Your task to perform on an android device: turn on the 24-hour format for clock Image 0: 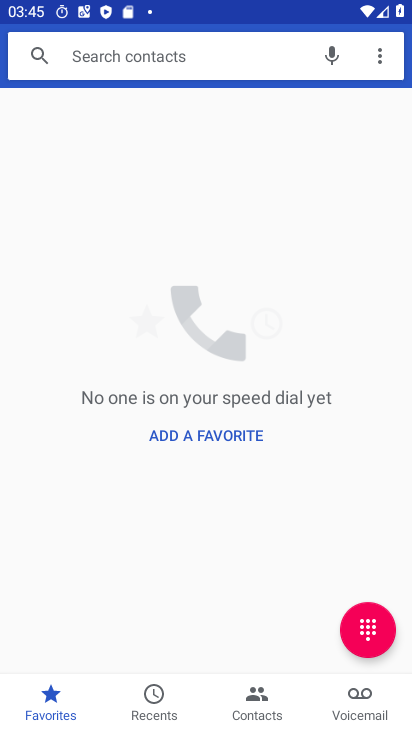
Step 0: press home button
Your task to perform on an android device: turn on the 24-hour format for clock Image 1: 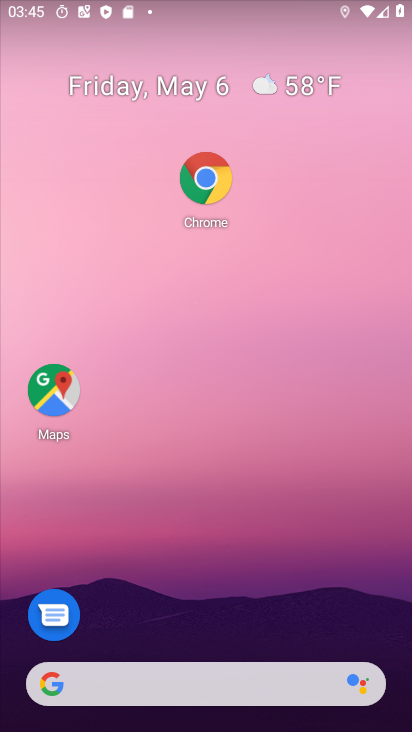
Step 1: drag from (268, 549) to (187, 120)
Your task to perform on an android device: turn on the 24-hour format for clock Image 2: 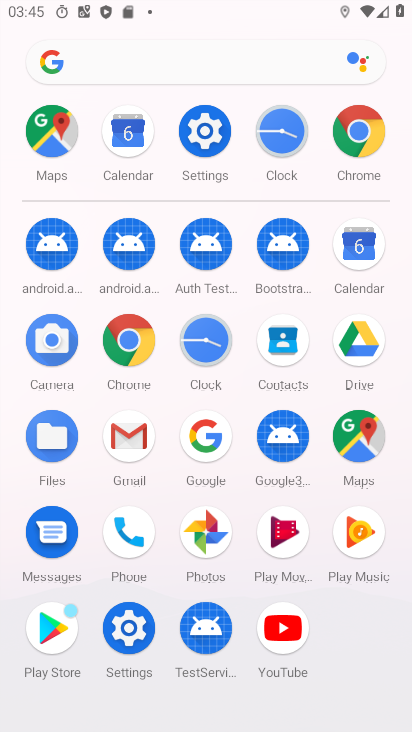
Step 2: click (270, 126)
Your task to perform on an android device: turn on the 24-hour format for clock Image 3: 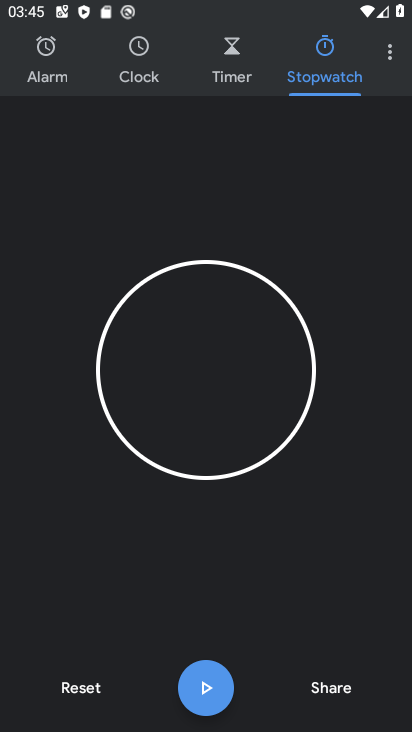
Step 3: click (390, 39)
Your task to perform on an android device: turn on the 24-hour format for clock Image 4: 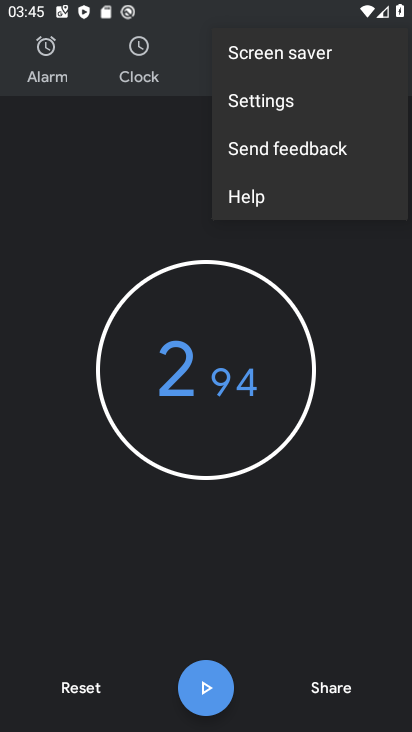
Step 4: click (257, 100)
Your task to perform on an android device: turn on the 24-hour format for clock Image 5: 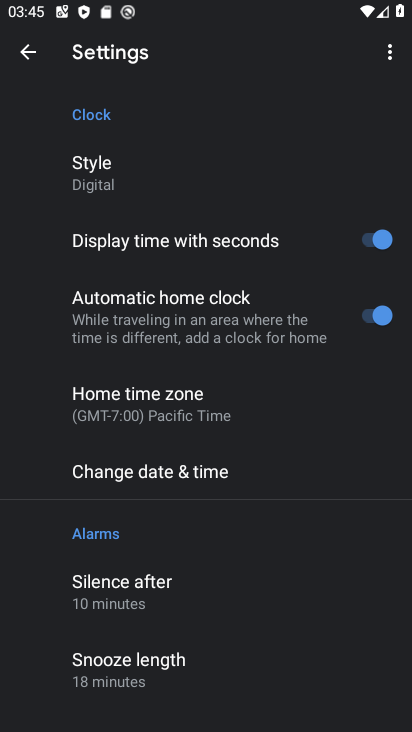
Step 5: click (121, 468)
Your task to perform on an android device: turn on the 24-hour format for clock Image 6: 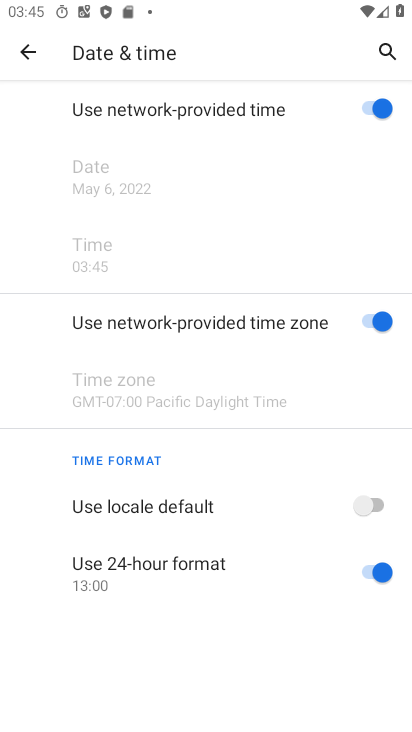
Step 6: task complete